Your task to perform on an android device: Open calendar and show me the third week of next month Image 0: 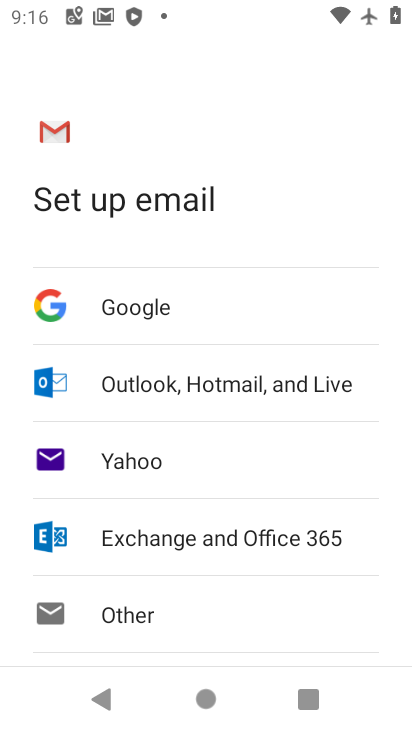
Step 0: task complete